Your task to perform on an android device: see tabs open on other devices in the chrome app Image 0: 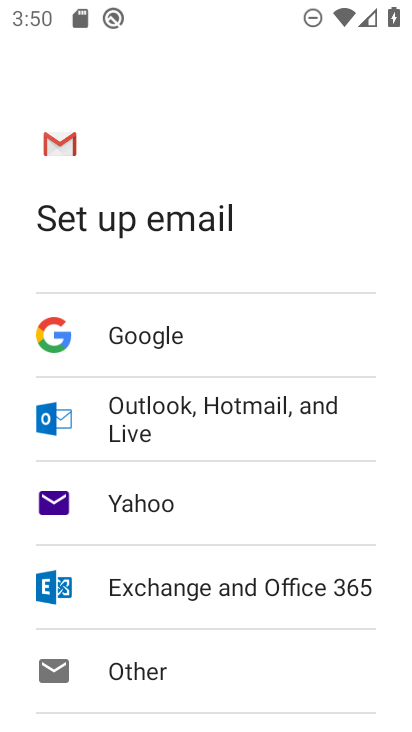
Step 0: press home button
Your task to perform on an android device: see tabs open on other devices in the chrome app Image 1: 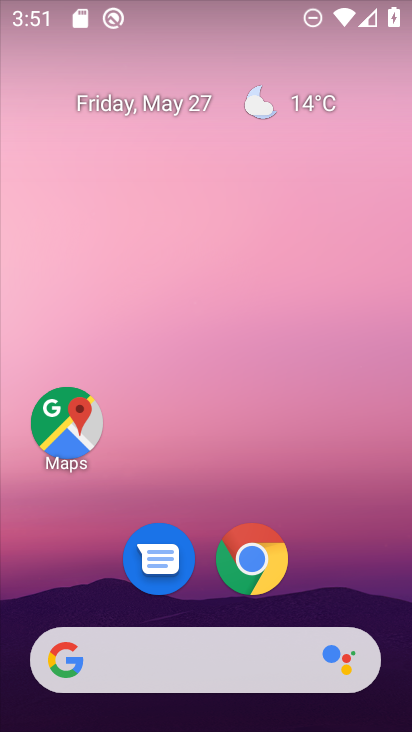
Step 1: drag from (286, 650) to (312, 0)
Your task to perform on an android device: see tabs open on other devices in the chrome app Image 2: 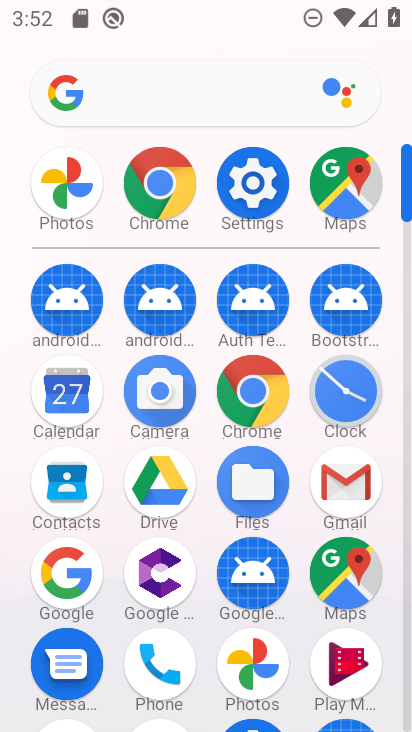
Step 2: click (264, 381)
Your task to perform on an android device: see tabs open on other devices in the chrome app Image 3: 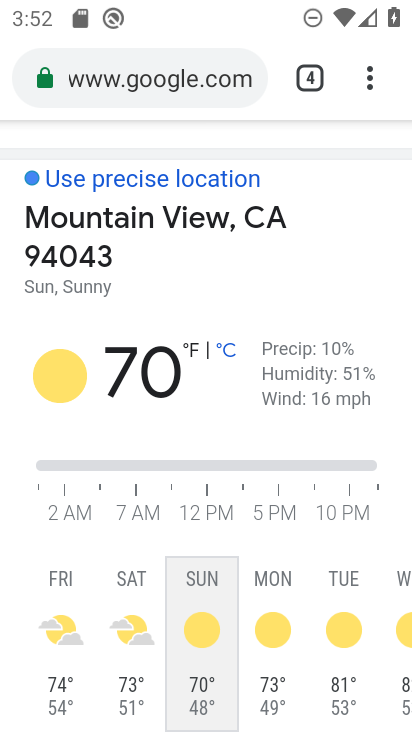
Step 3: task complete